Your task to perform on an android device: turn on the 12-hour format for clock Image 0: 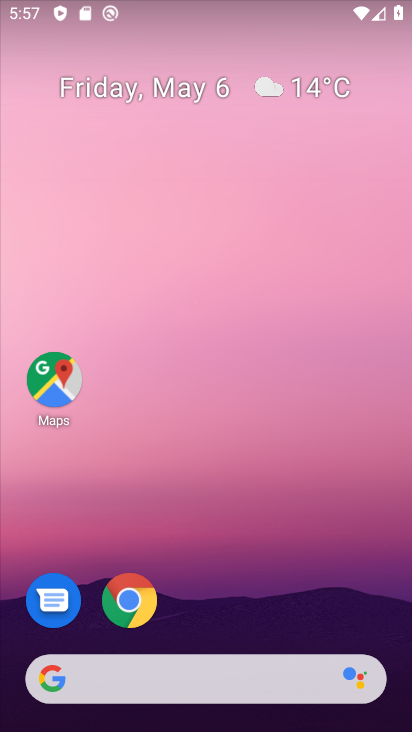
Step 0: drag from (200, 576) to (239, 0)
Your task to perform on an android device: turn on the 12-hour format for clock Image 1: 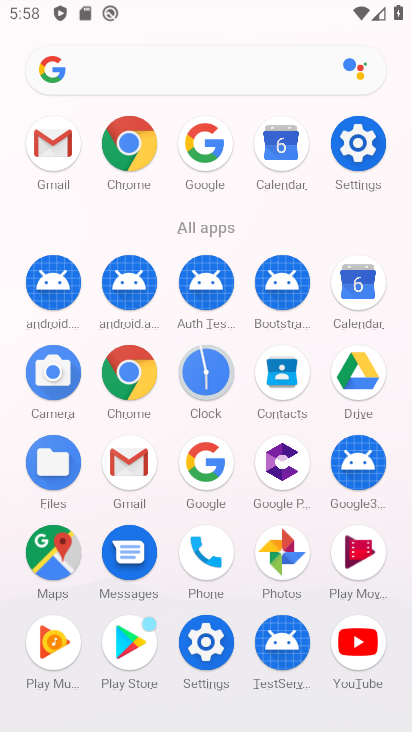
Step 1: click (202, 372)
Your task to perform on an android device: turn on the 12-hour format for clock Image 2: 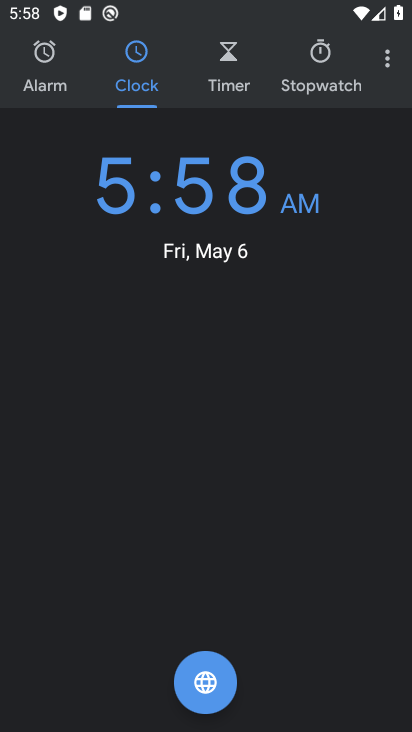
Step 2: click (391, 60)
Your task to perform on an android device: turn on the 12-hour format for clock Image 3: 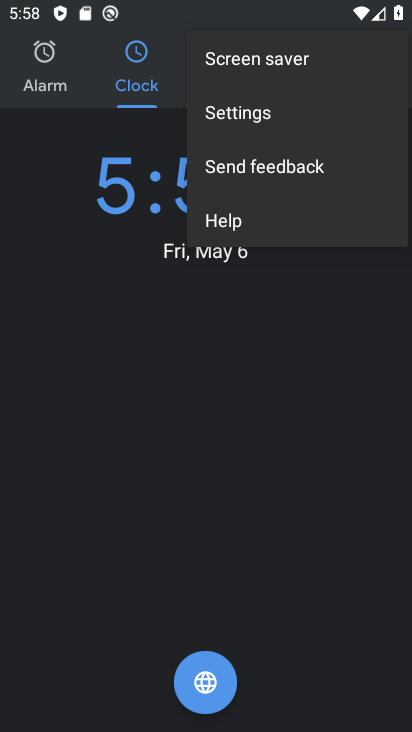
Step 3: click (266, 111)
Your task to perform on an android device: turn on the 12-hour format for clock Image 4: 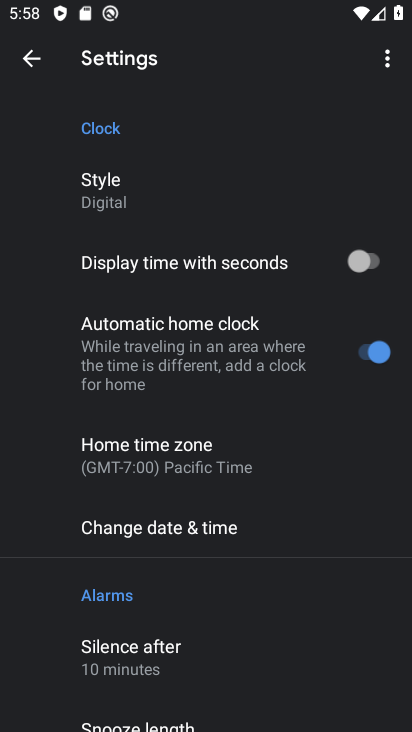
Step 4: click (146, 529)
Your task to perform on an android device: turn on the 12-hour format for clock Image 5: 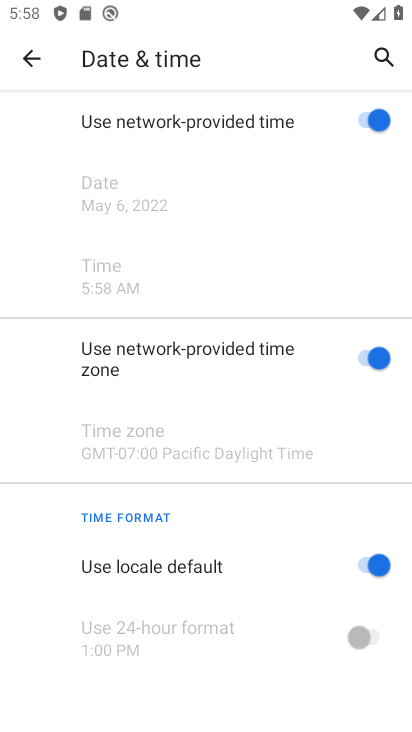
Step 5: task complete